Your task to perform on an android device: turn off notifications settings in the gmail app Image 0: 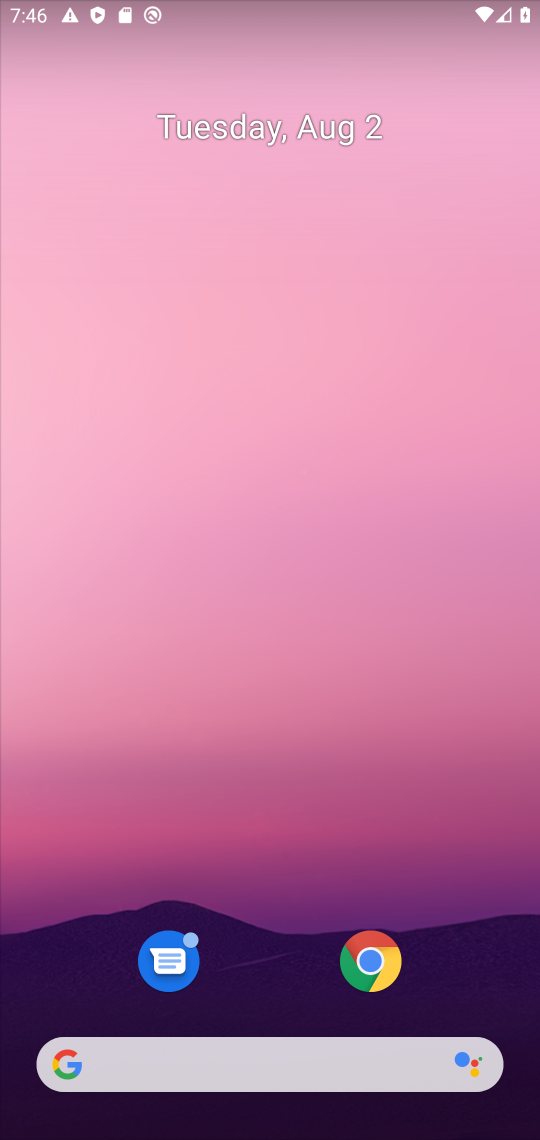
Step 0: drag from (452, 826) to (448, 130)
Your task to perform on an android device: turn off notifications settings in the gmail app Image 1: 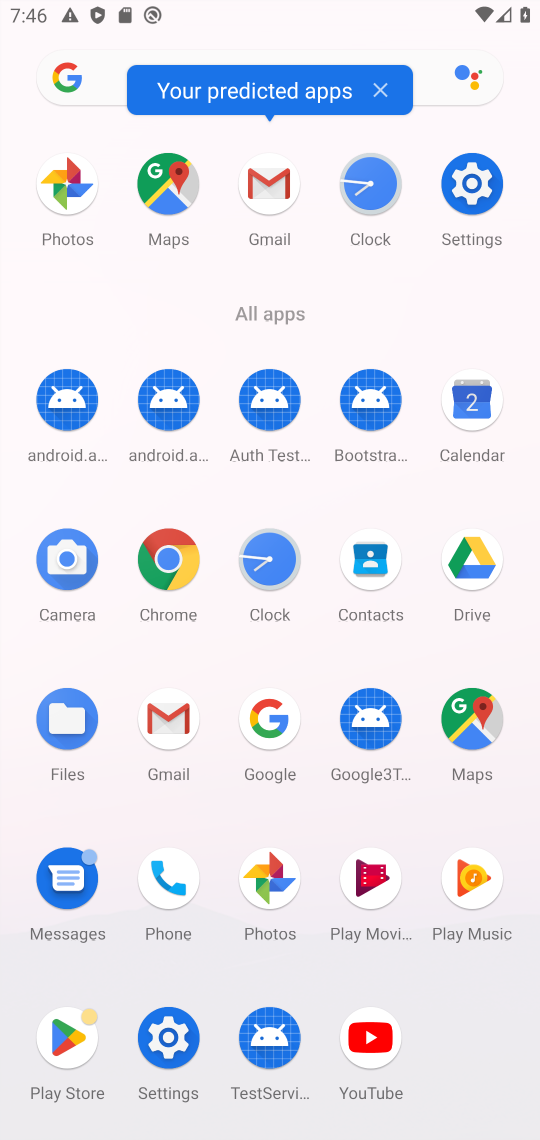
Step 1: click (169, 736)
Your task to perform on an android device: turn off notifications settings in the gmail app Image 2: 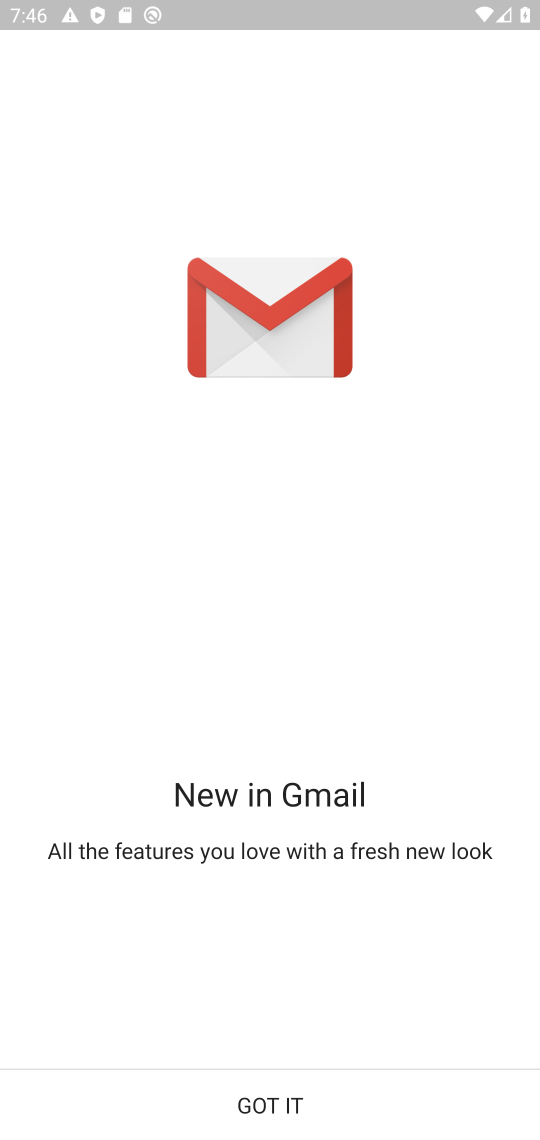
Step 2: click (240, 1112)
Your task to perform on an android device: turn off notifications settings in the gmail app Image 3: 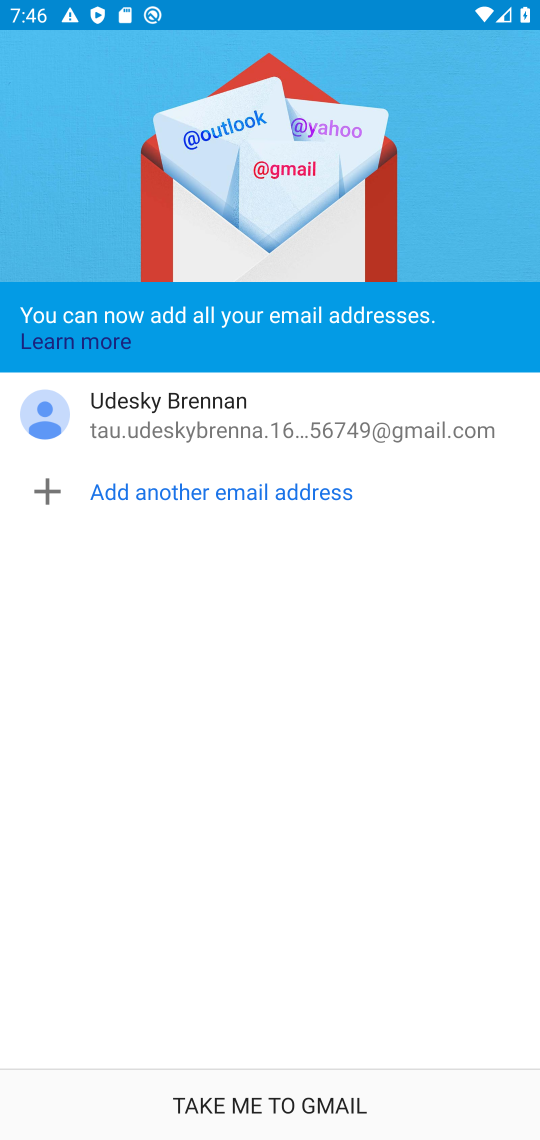
Step 3: click (241, 1111)
Your task to perform on an android device: turn off notifications settings in the gmail app Image 4: 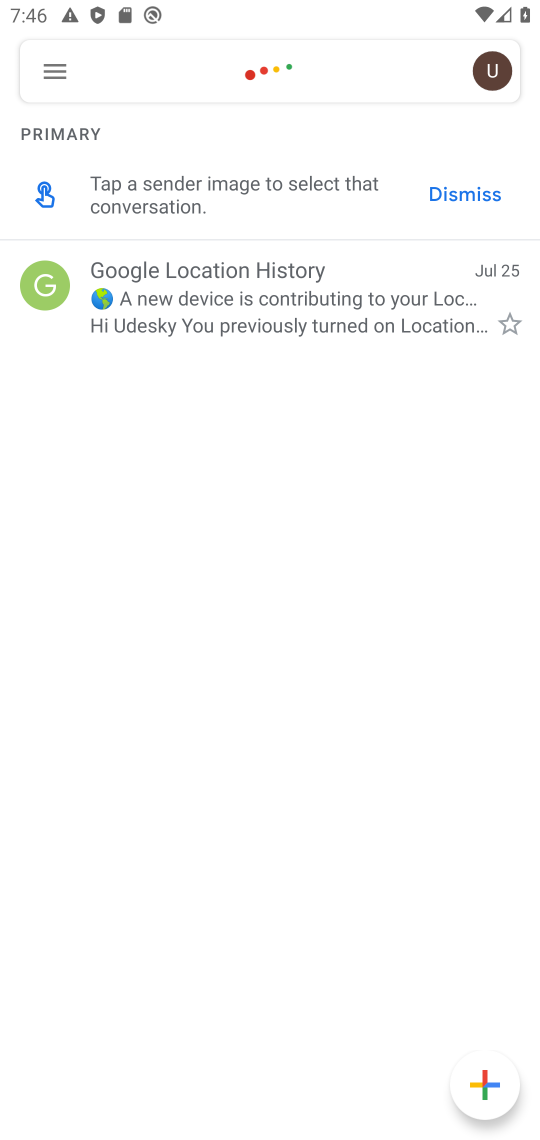
Step 4: click (50, 67)
Your task to perform on an android device: turn off notifications settings in the gmail app Image 5: 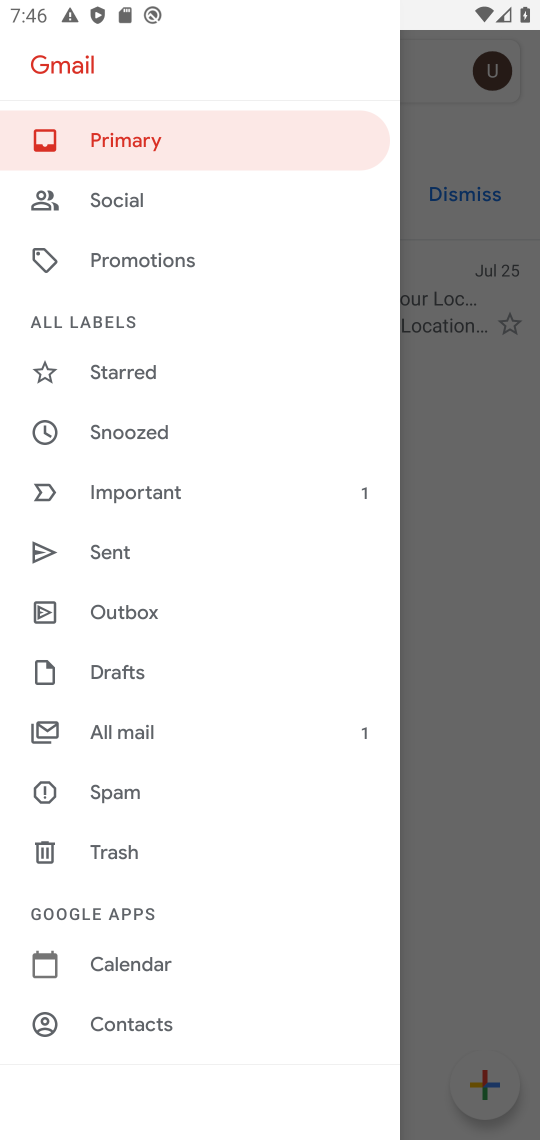
Step 5: drag from (143, 1047) to (202, 489)
Your task to perform on an android device: turn off notifications settings in the gmail app Image 6: 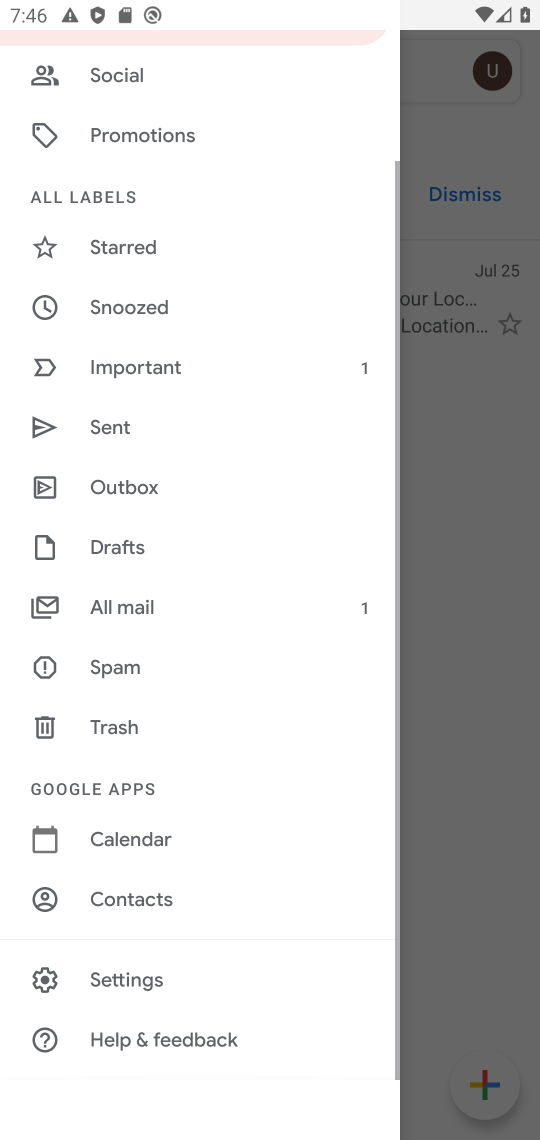
Step 6: click (106, 982)
Your task to perform on an android device: turn off notifications settings in the gmail app Image 7: 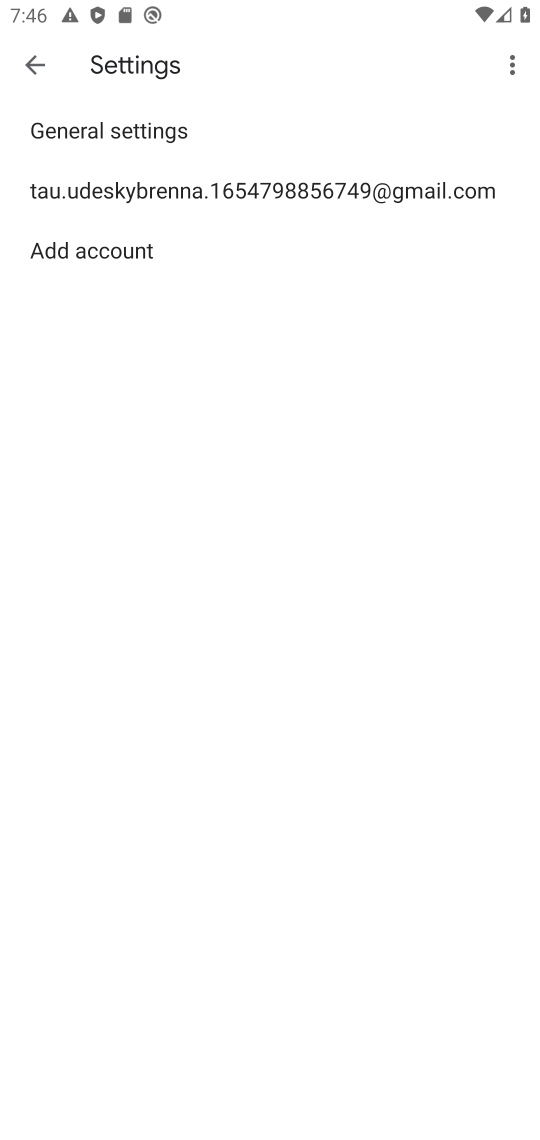
Step 7: click (198, 195)
Your task to perform on an android device: turn off notifications settings in the gmail app Image 8: 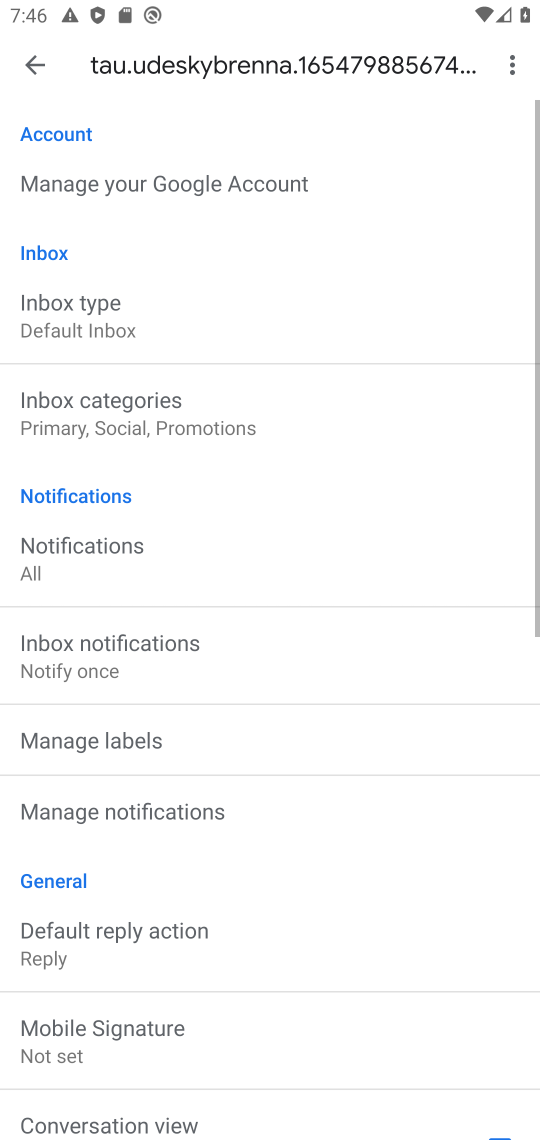
Step 8: click (173, 574)
Your task to perform on an android device: turn off notifications settings in the gmail app Image 9: 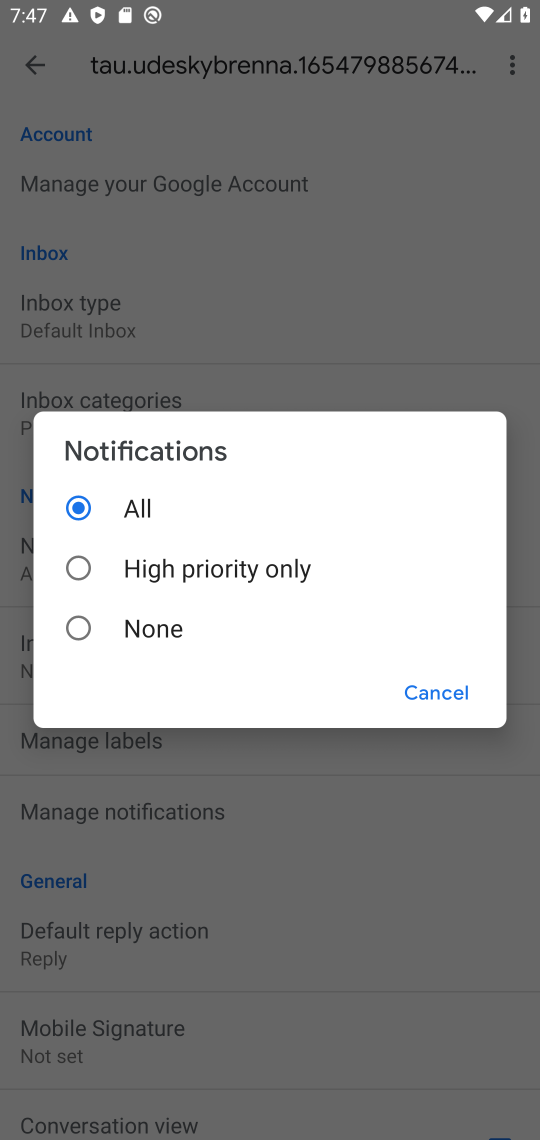
Step 9: click (165, 630)
Your task to perform on an android device: turn off notifications settings in the gmail app Image 10: 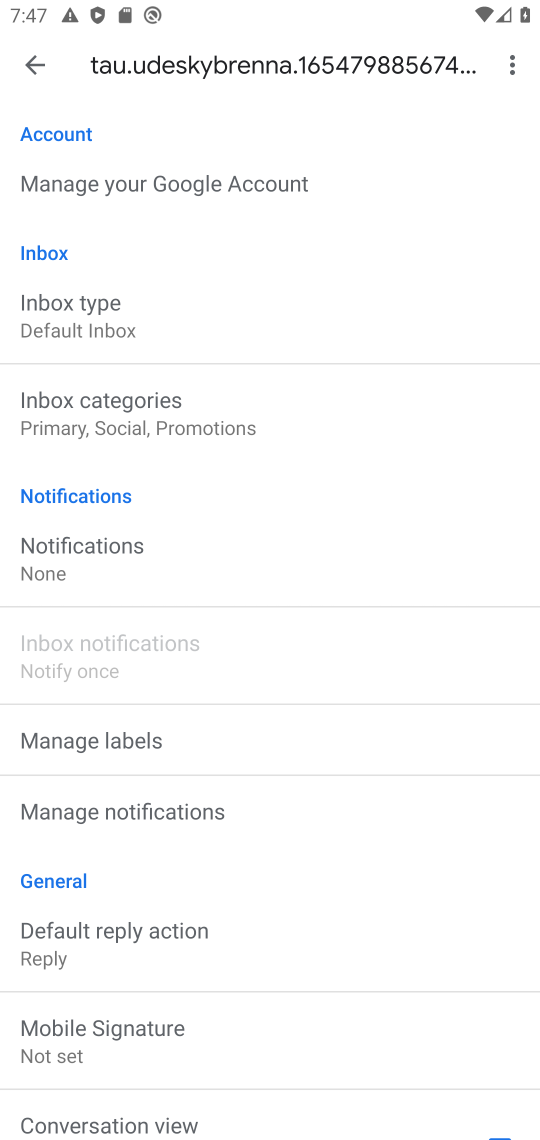
Step 10: task complete